Your task to perform on an android device: search for starred emails in the gmail app Image 0: 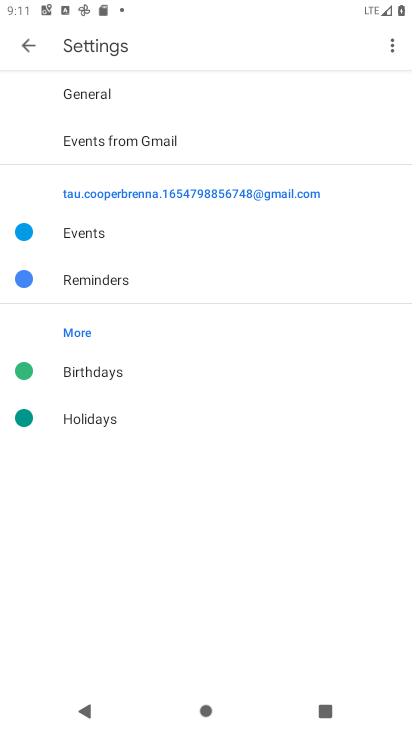
Step 0: press home button
Your task to perform on an android device: search for starred emails in the gmail app Image 1: 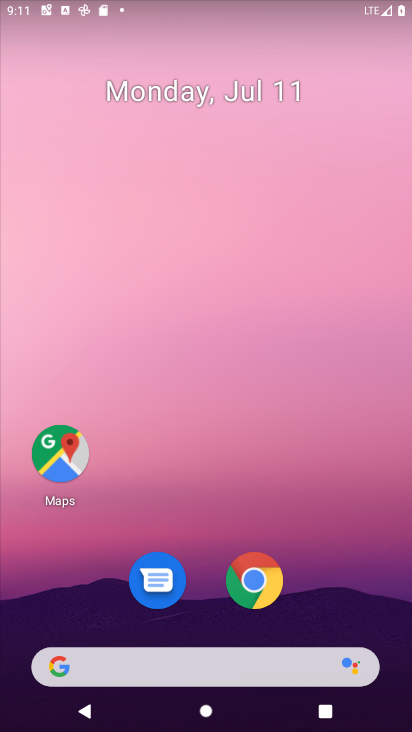
Step 1: drag from (312, 541) to (259, 35)
Your task to perform on an android device: search for starred emails in the gmail app Image 2: 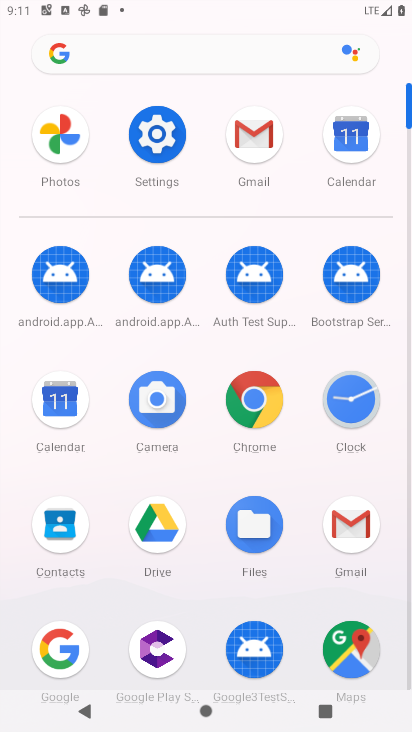
Step 2: click (262, 139)
Your task to perform on an android device: search for starred emails in the gmail app Image 3: 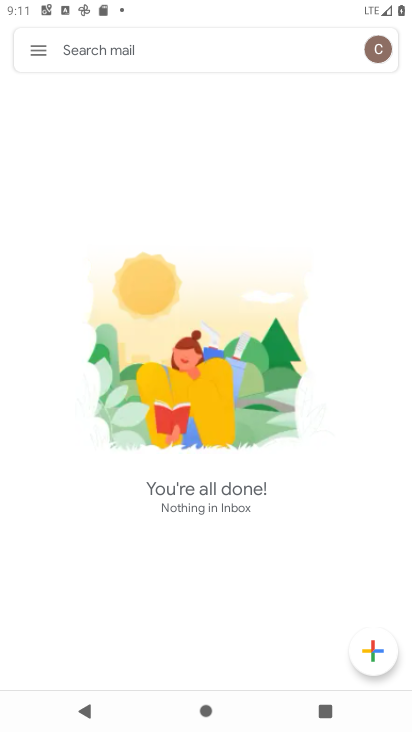
Step 3: click (41, 49)
Your task to perform on an android device: search for starred emails in the gmail app Image 4: 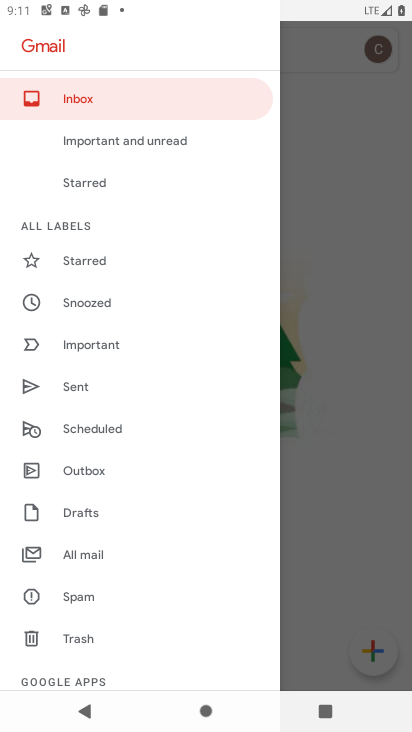
Step 4: click (90, 264)
Your task to perform on an android device: search for starred emails in the gmail app Image 5: 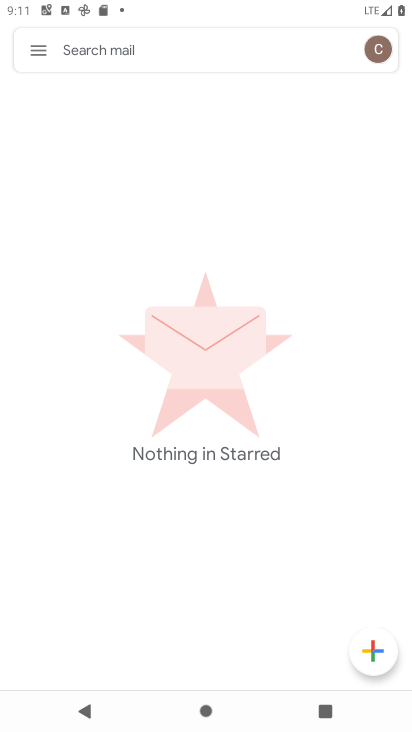
Step 5: task complete